Your task to perform on an android device: change your default location settings in chrome Image 0: 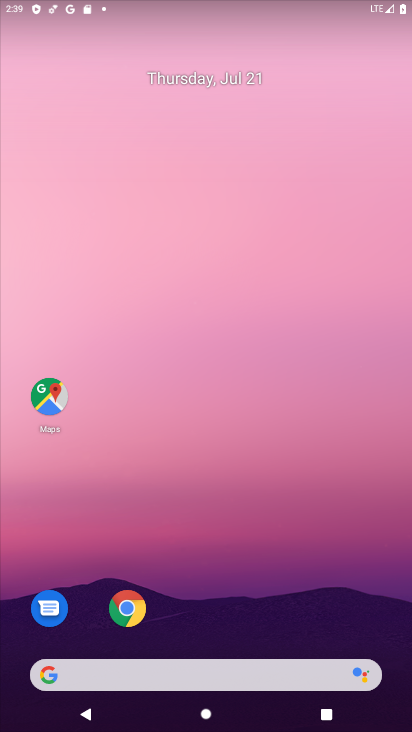
Step 0: drag from (250, 658) to (241, 217)
Your task to perform on an android device: change your default location settings in chrome Image 1: 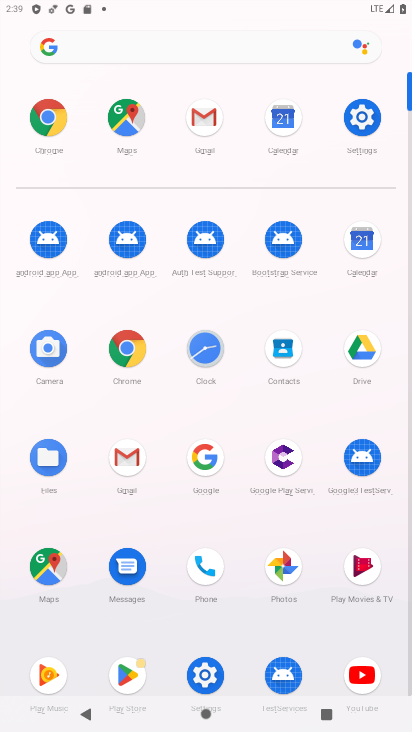
Step 1: click (140, 349)
Your task to perform on an android device: change your default location settings in chrome Image 2: 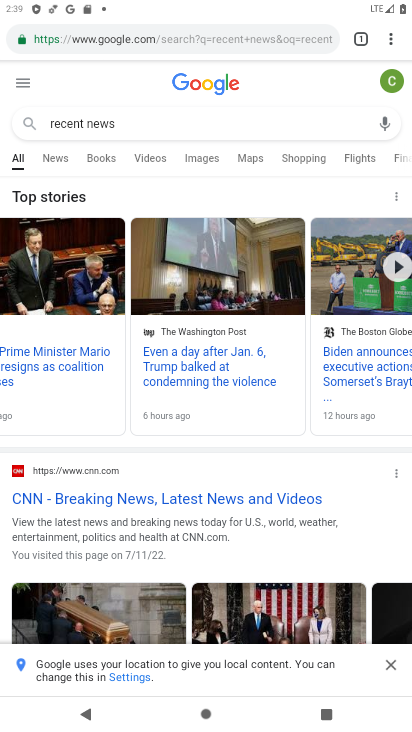
Step 2: drag from (390, 43) to (260, 483)
Your task to perform on an android device: change your default location settings in chrome Image 3: 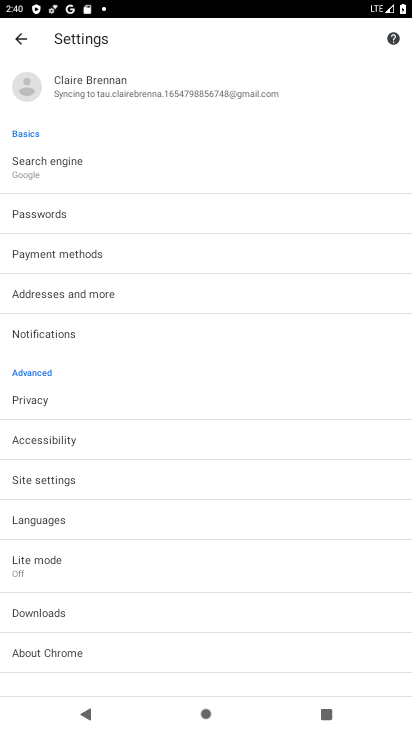
Step 3: click (51, 486)
Your task to perform on an android device: change your default location settings in chrome Image 4: 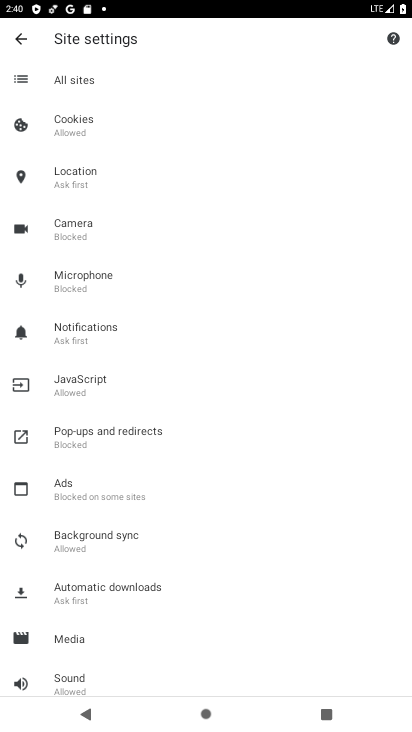
Step 4: click (97, 174)
Your task to perform on an android device: change your default location settings in chrome Image 5: 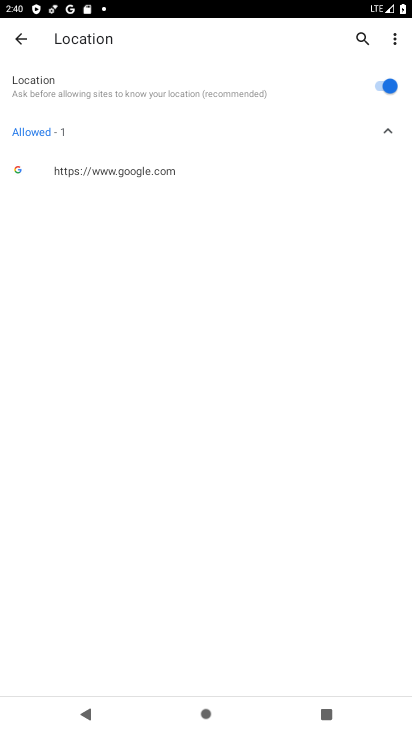
Step 5: click (383, 91)
Your task to perform on an android device: change your default location settings in chrome Image 6: 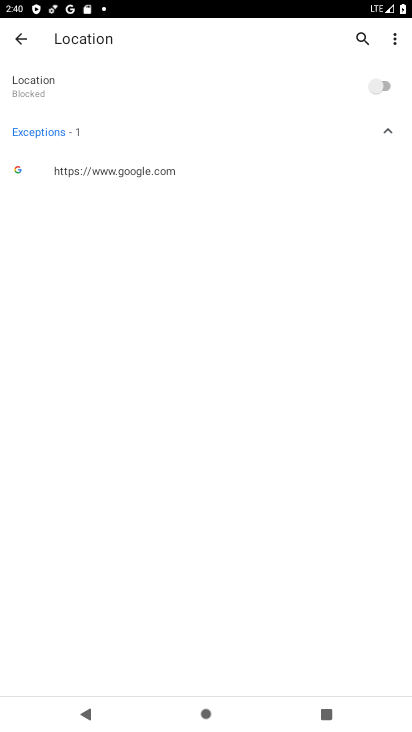
Step 6: task complete